Your task to perform on an android device: Open the phone app and click the voicemail tab. Image 0: 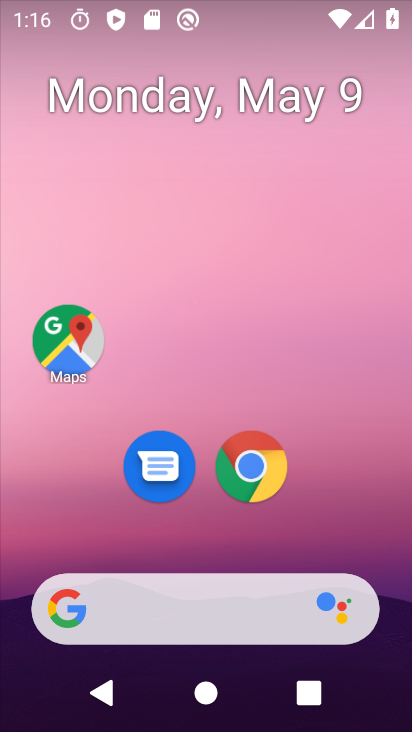
Step 0: drag from (309, 556) to (361, 168)
Your task to perform on an android device: Open the phone app and click the voicemail tab. Image 1: 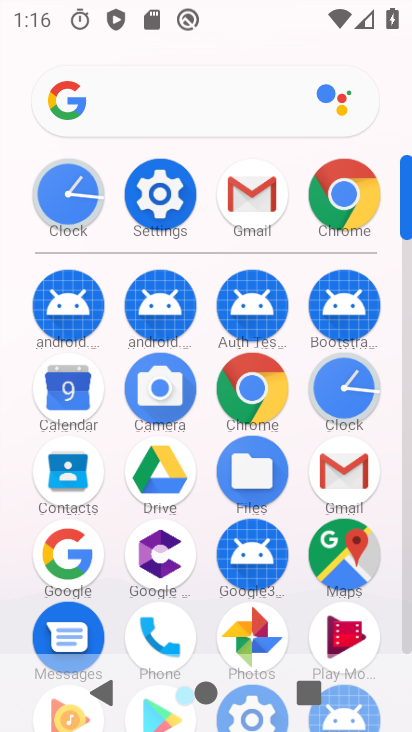
Step 1: click (403, 347)
Your task to perform on an android device: Open the phone app and click the voicemail tab. Image 2: 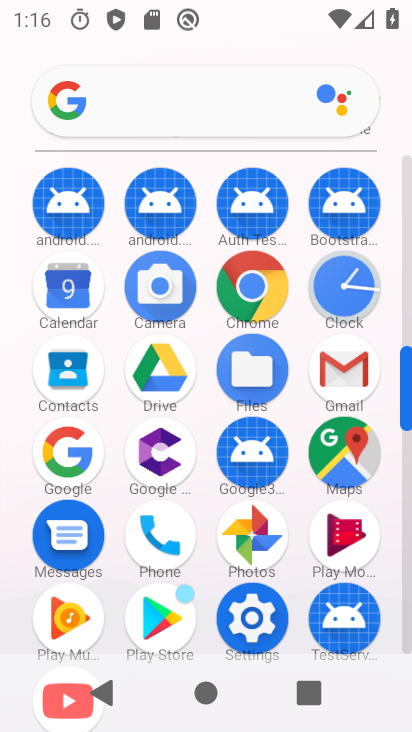
Step 2: click (157, 537)
Your task to perform on an android device: Open the phone app and click the voicemail tab. Image 3: 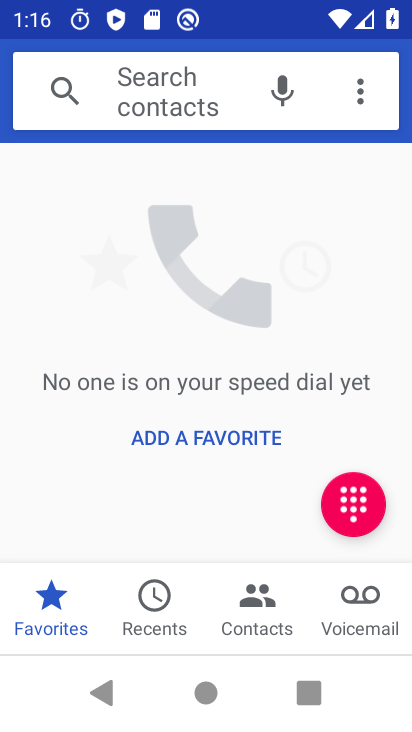
Step 3: click (338, 594)
Your task to perform on an android device: Open the phone app and click the voicemail tab. Image 4: 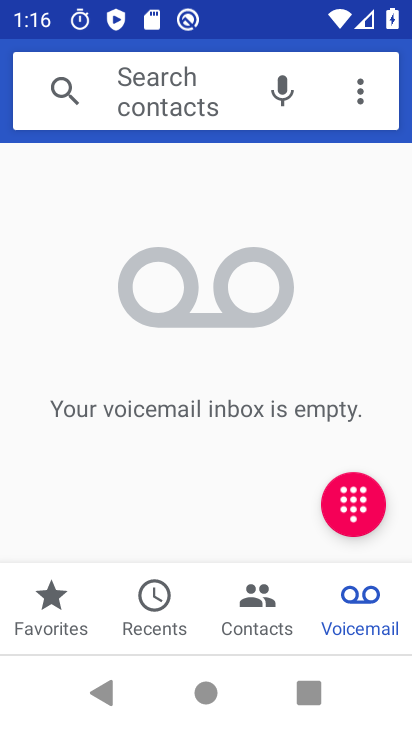
Step 4: task complete